Your task to perform on an android device: Go to ESPN.com Image 0: 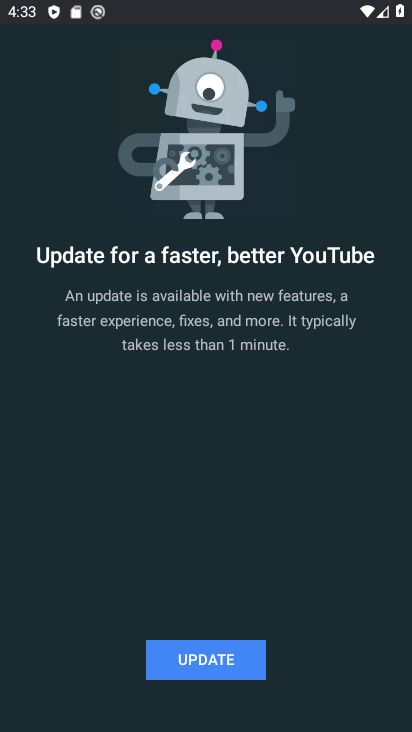
Step 0: press back button
Your task to perform on an android device: Go to ESPN.com Image 1: 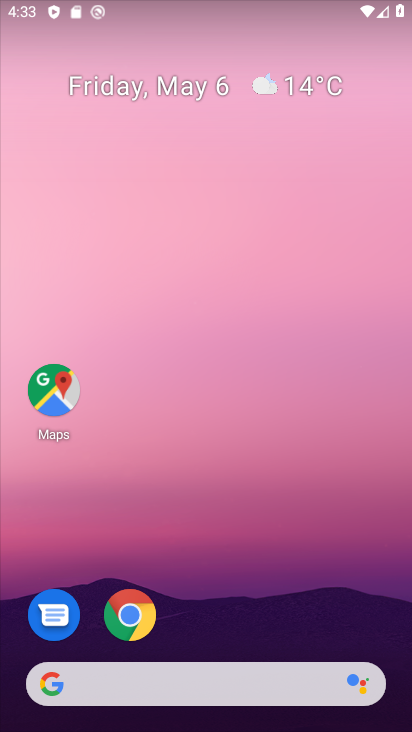
Step 1: click (145, 612)
Your task to perform on an android device: Go to ESPN.com Image 2: 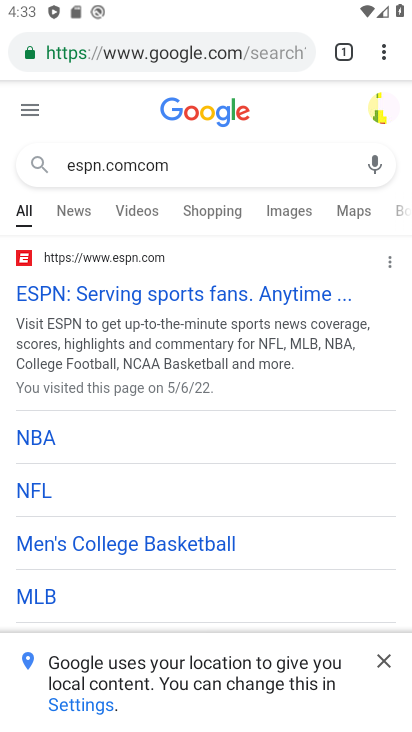
Step 2: click (152, 289)
Your task to perform on an android device: Go to ESPN.com Image 3: 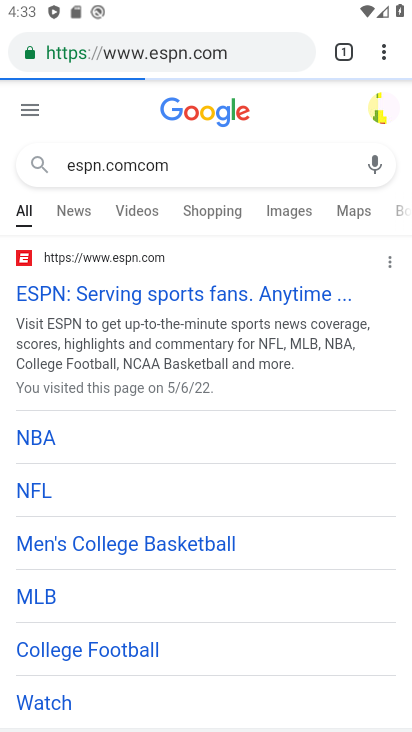
Step 3: task complete